Your task to perform on an android device: toggle notification dots Image 0: 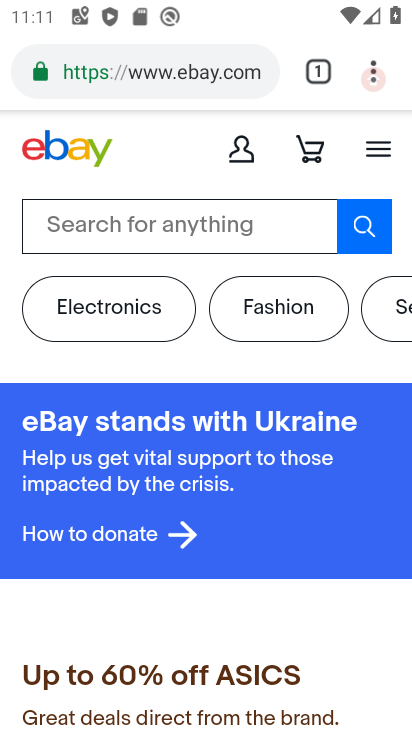
Step 0: press home button
Your task to perform on an android device: toggle notification dots Image 1: 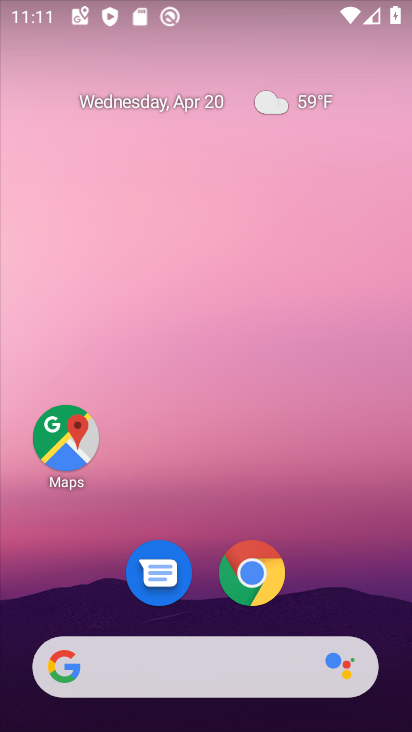
Step 1: drag from (375, 608) to (373, 65)
Your task to perform on an android device: toggle notification dots Image 2: 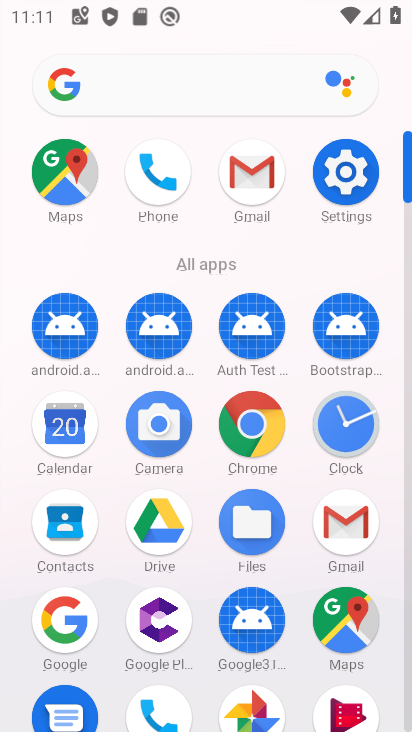
Step 2: click (353, 175)
Your task to perform on an android device: toggle notification dots Image 3: 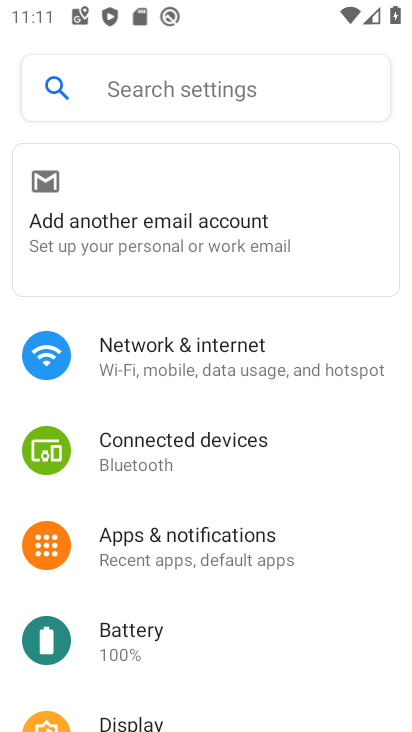
Step 3: click (168, 546)
Your task to perform on an android device: toggle notification dots Image 4: 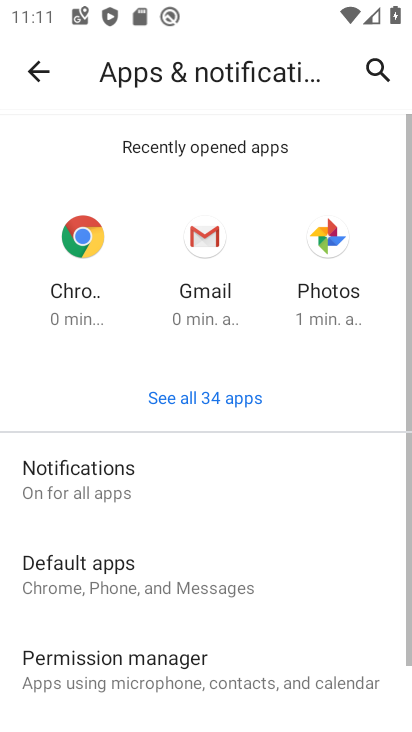
Step 4: click (64, 487)
Your task to perform on an android device: toggle notification dots Image 5: 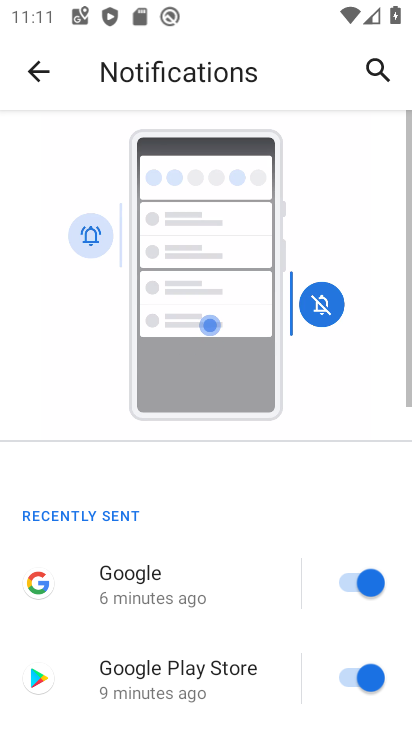
Step 5: drag from (307, 634) to (318, 106)
Your task to perform on an android device: toggle notification dots Image 6: 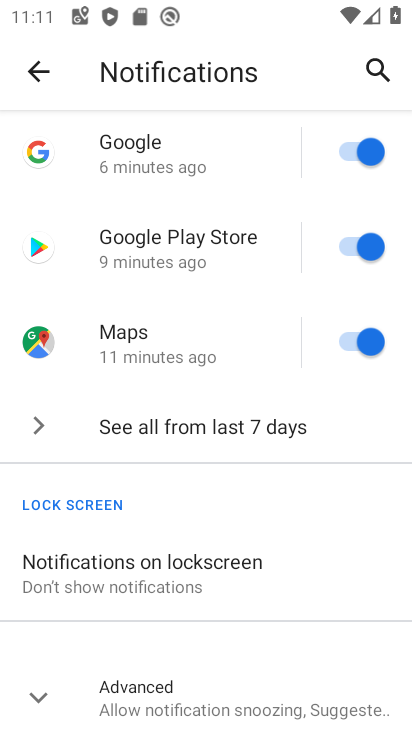
Step 6: drag from (239, 499) to (225, 118)
Your task to perform on an android device: toggle notification dots Image 7: 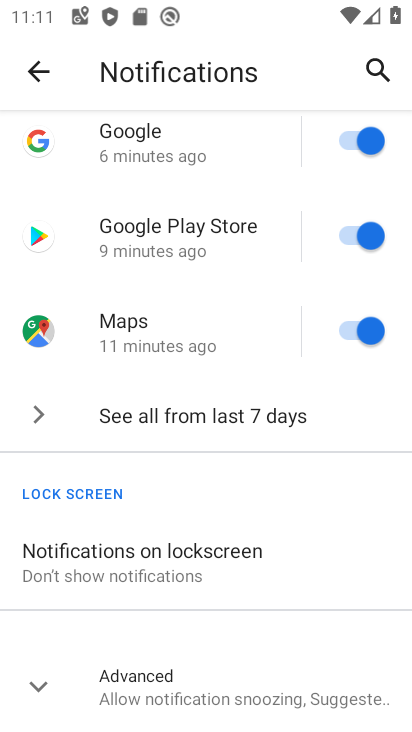
Step 7: click (41, 692)
Your task to perform on an android device: toggle notification dots Image 8: 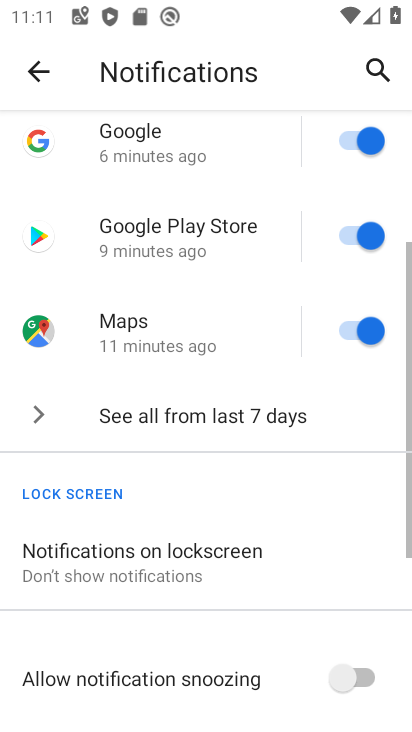
Step 8: drag from (191, 683) to (173, 235)
Your task to perform on an android device: toggle notification dots Image 9: 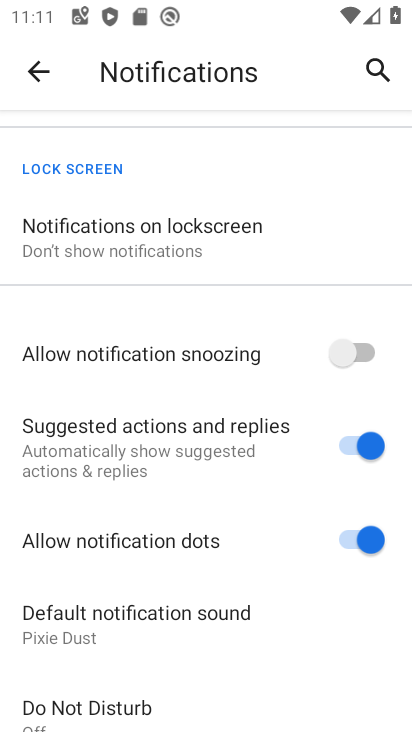
Step 9: click (367, 545)
Your task to perform on an android device: toggle notification dots Image 10: 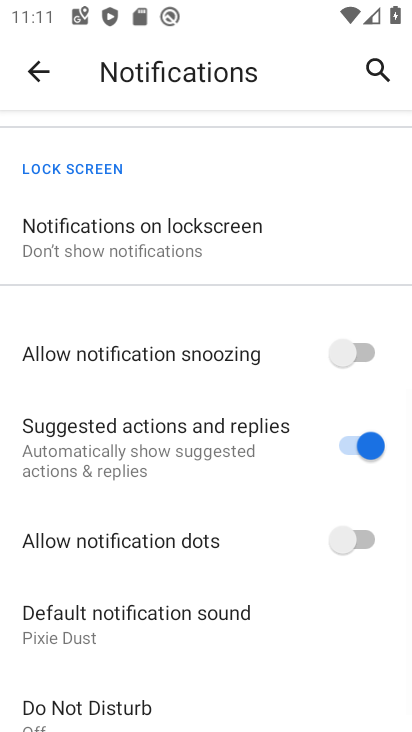
Step 10: task complete